Your task to perform on an android device: move a message to another label in the gmail app Image 0: 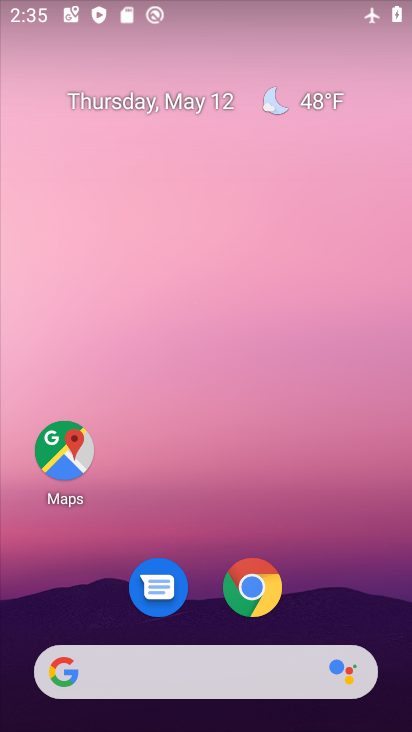
Step 0: drag from (230, 656) to (219, 77)
Your task to perform on an android device: move a message to another label in the gmail app Image 1: 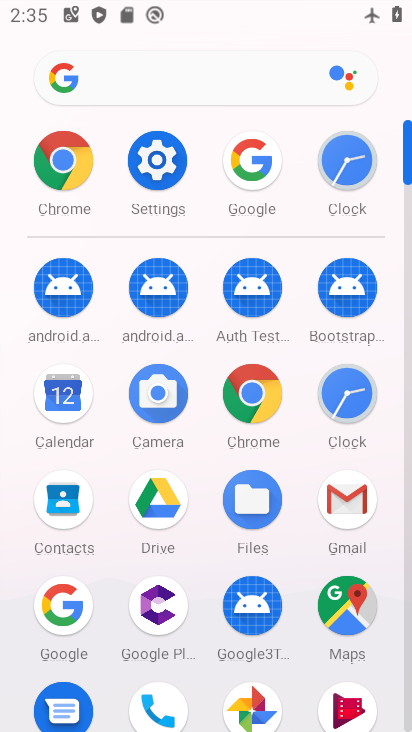
Step 1: click (361, 523)
Your task to perform on an android device: move a message to another label in the gmail app Image 2: 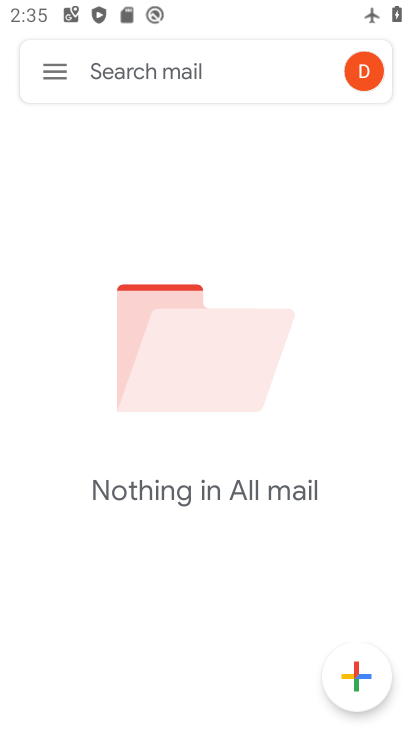
Step 2: task complete